Your task to perform on an android device: Search for the best rated vacuums on Target Image 0: 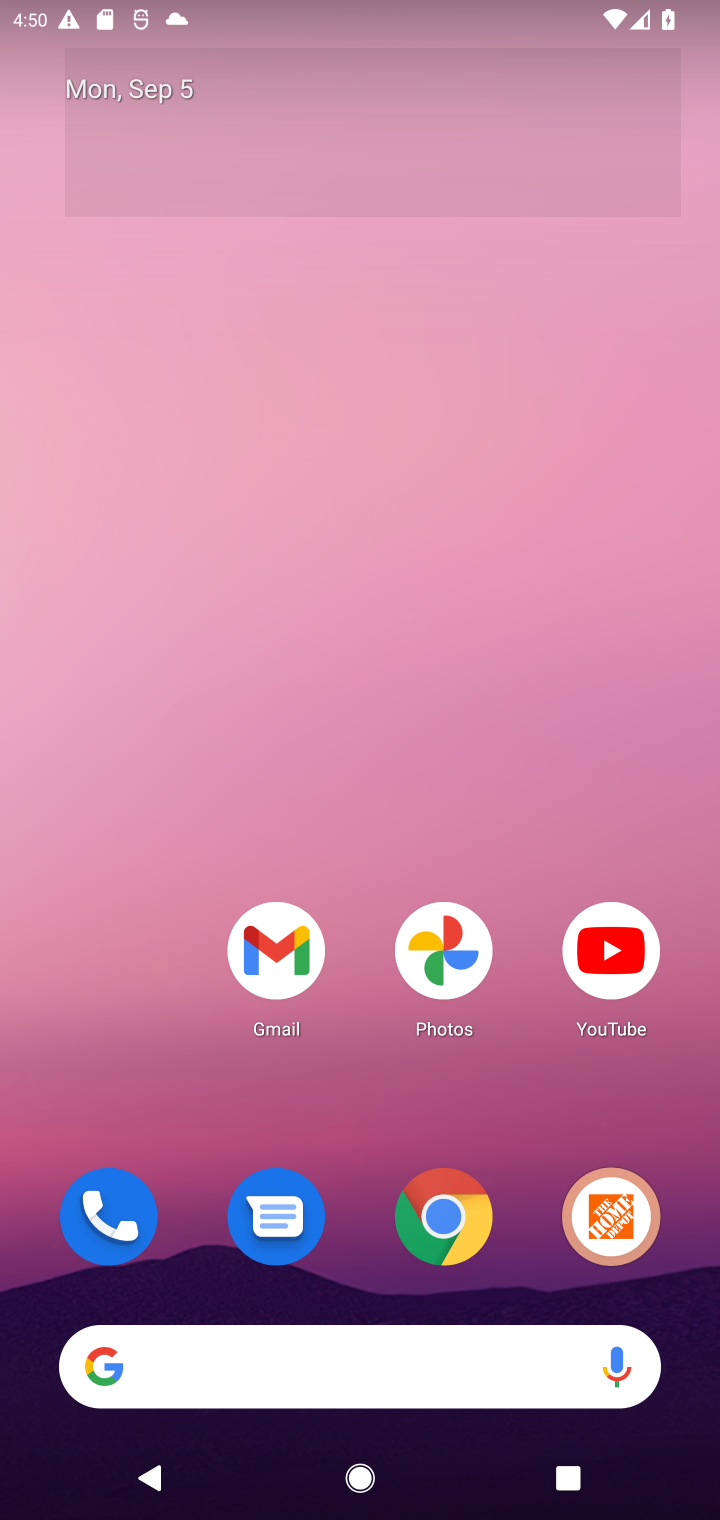
Step 0: click (85, 1363)
Your task to perform on an android device: Search for the best rated vacuums on Target Image 1: 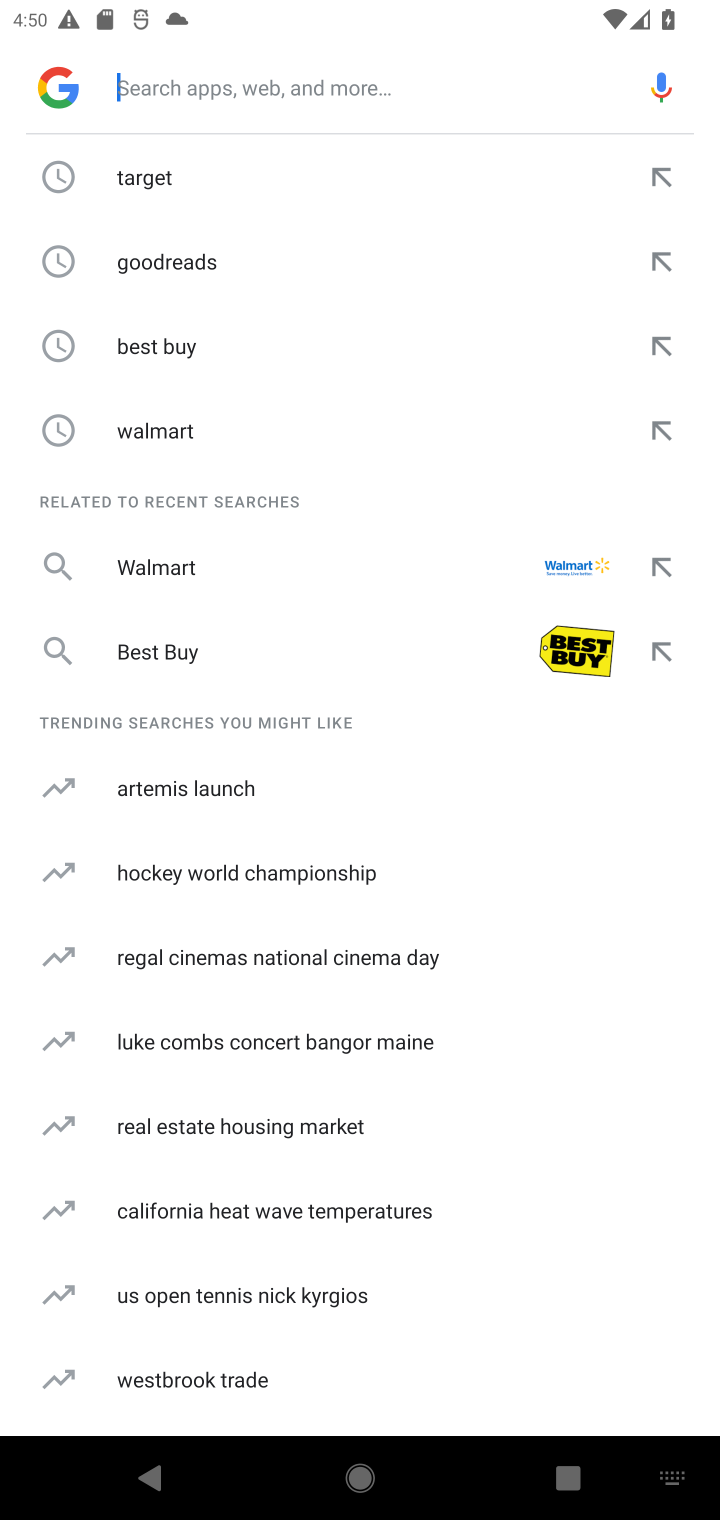
Step 1: click (147, 173)
Your task to perform on an android device: Search for the best rated vacuums on Target Image 2: 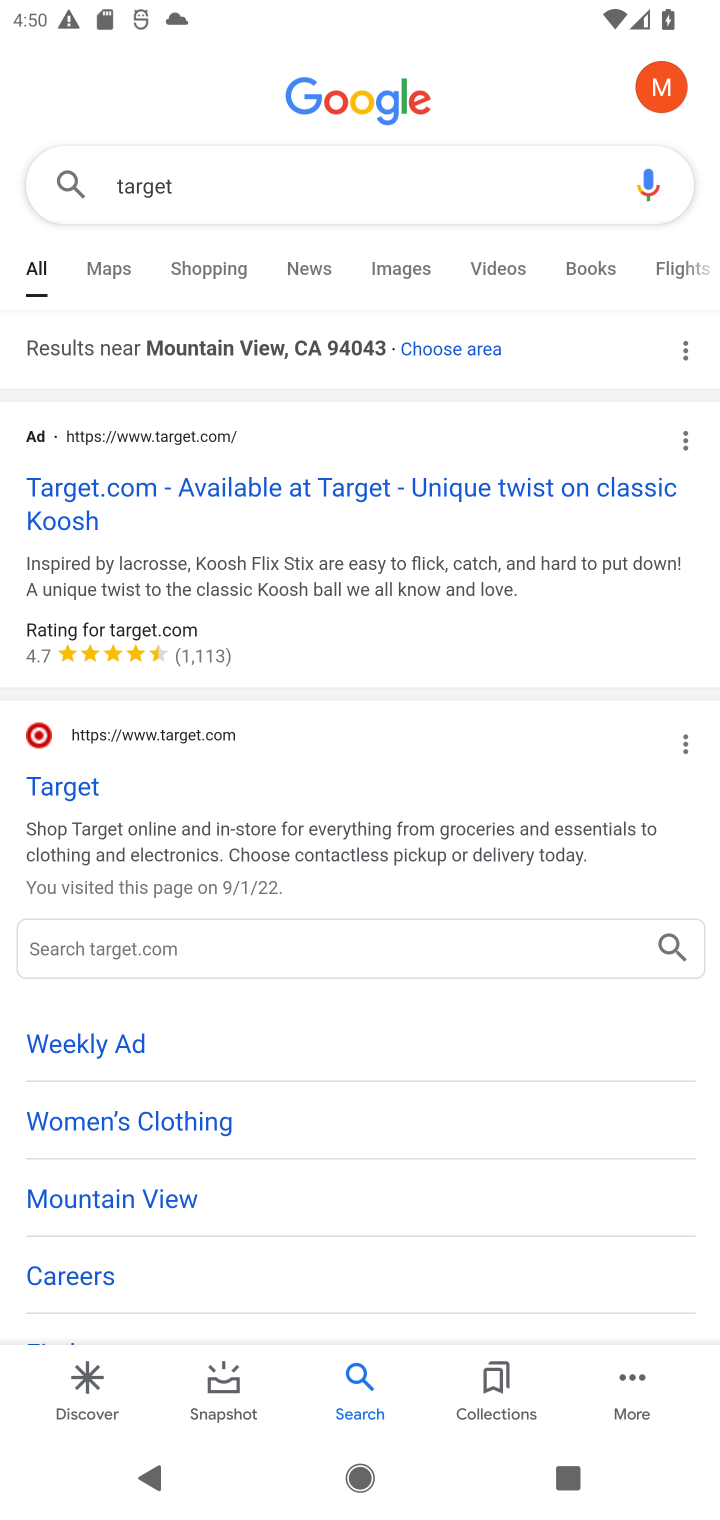
Step 2: click (82, 797)
Your task to perform on an android device: Search for the best rated vacuums on Target Image 3: 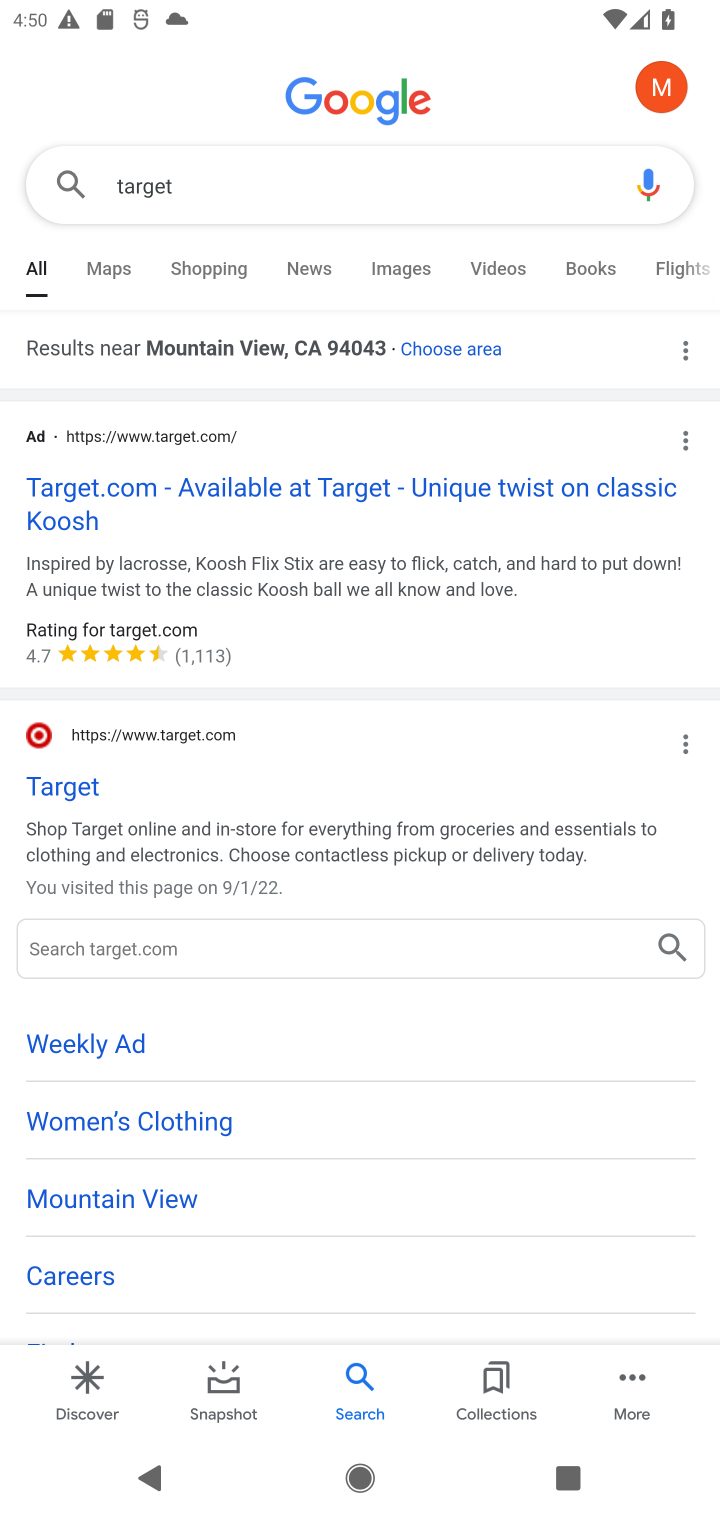
Step 3: click (78, 785)
Your task to perform on an android device: Search for the best rated vacuums on Target Image 4: 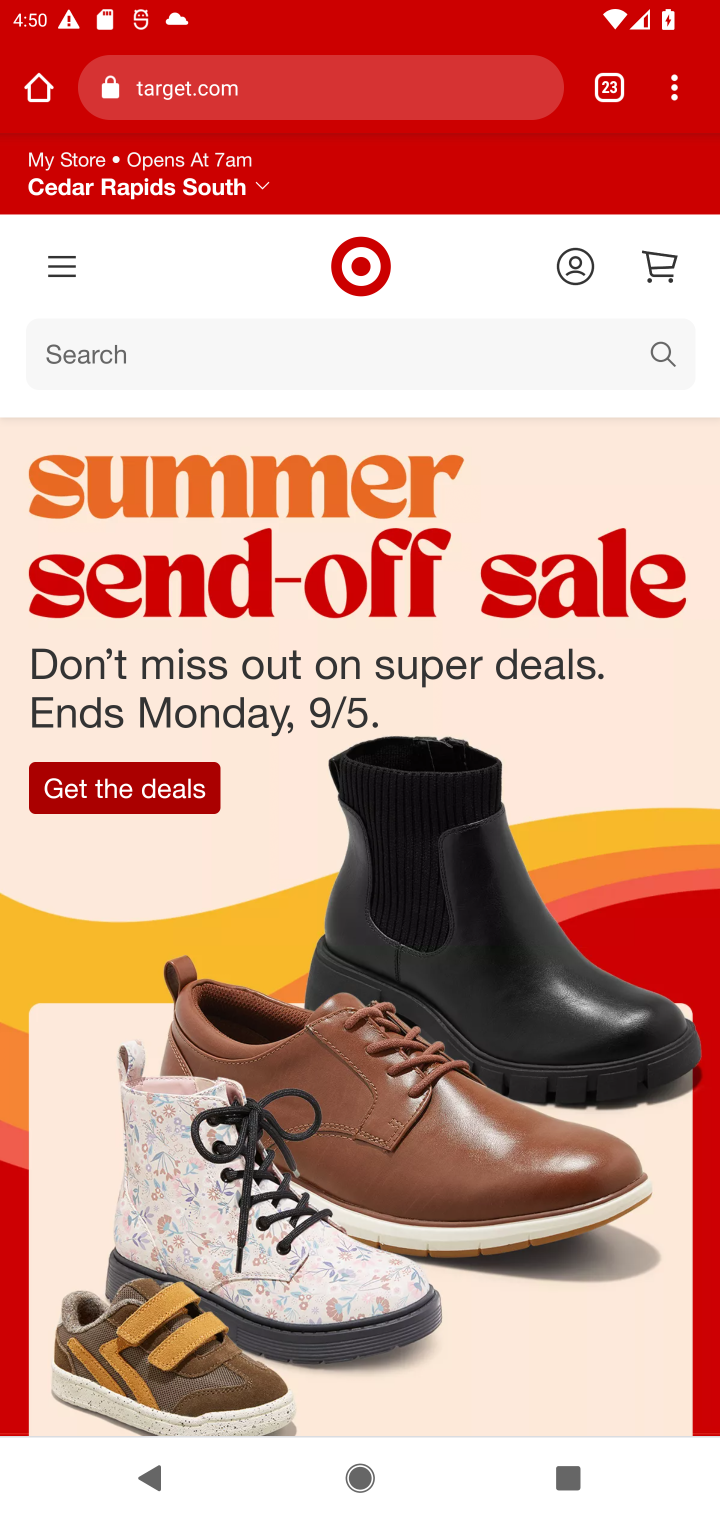
Step 4: click (250, 352)
Your task to perform on an android device: Search for the best rated vacuums on Target Image 5: 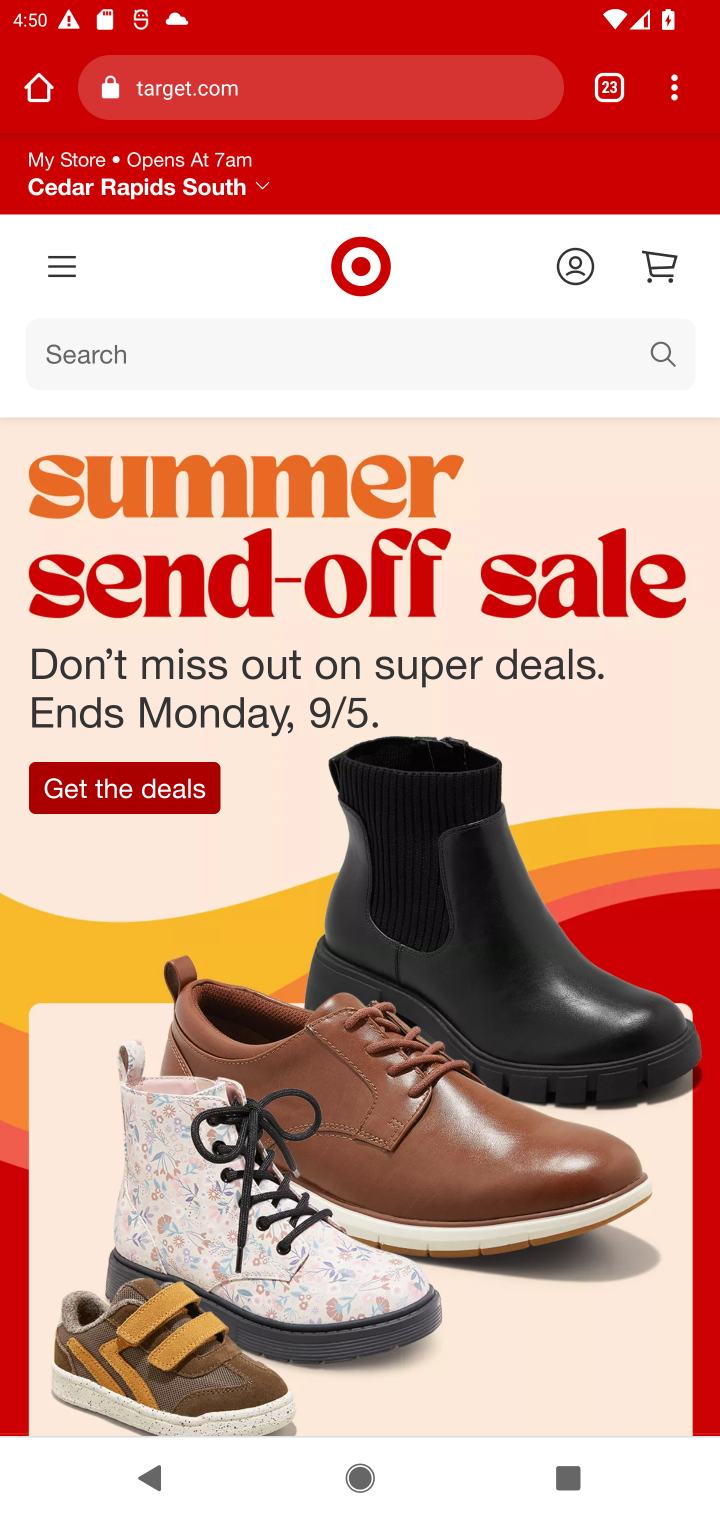
Step 5: click (118, 356)
Your task to perform on an android device: Search for the best rated vacuums on Target Image 6: 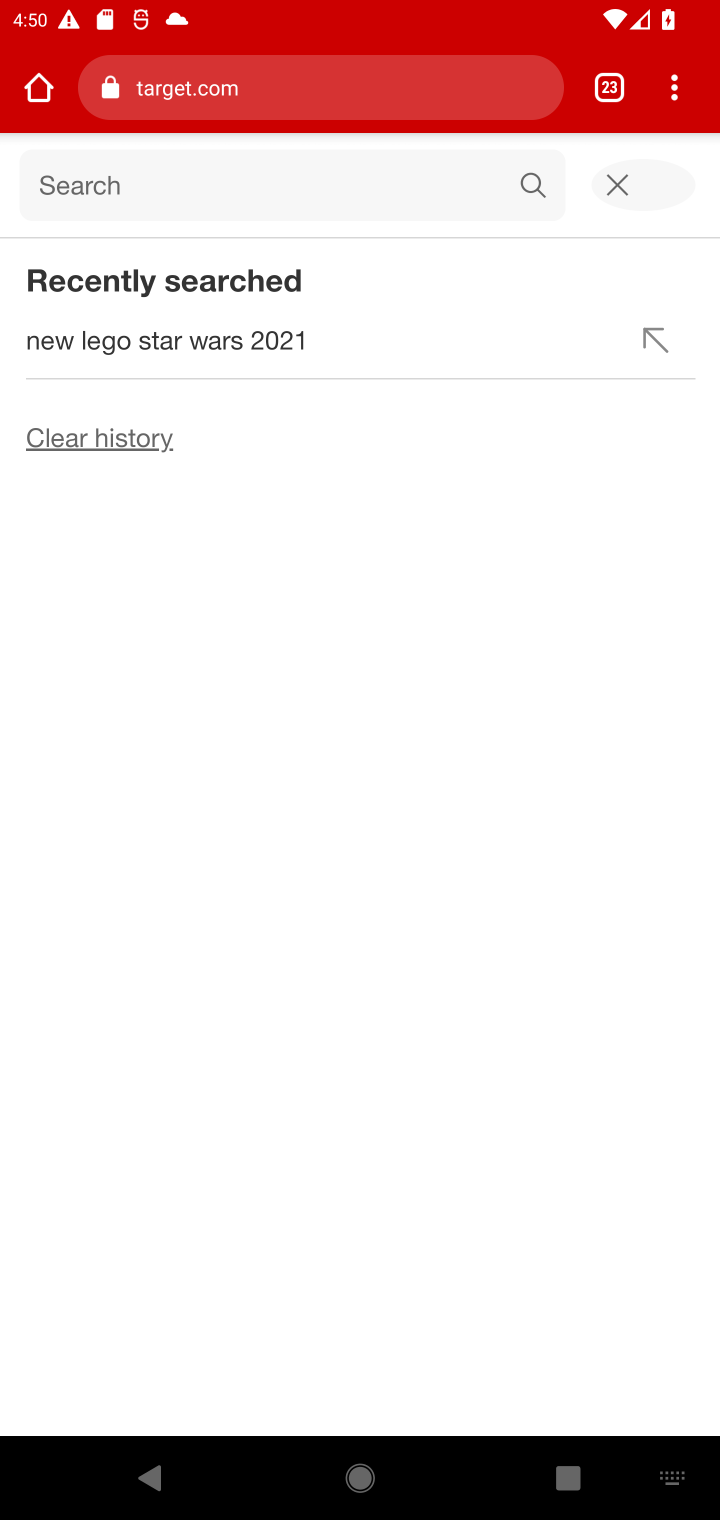
Step 6: type " vacuums "
Your task to perform on an android device: Search for the best rated vacuums on Target Image 7: 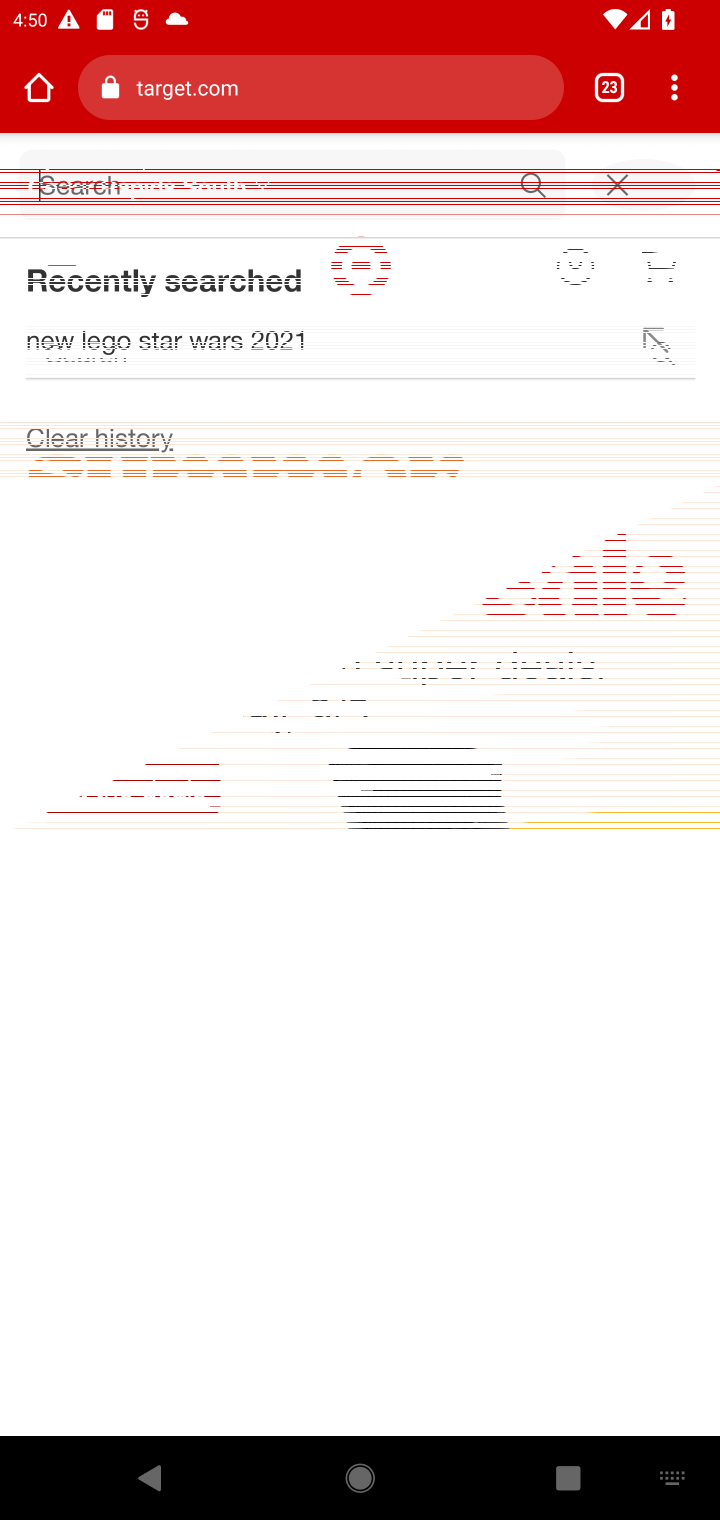
Step 7: click (99, 173)
Your task to perform on an android device: Search for the best rated vacuums on Target Image 8: 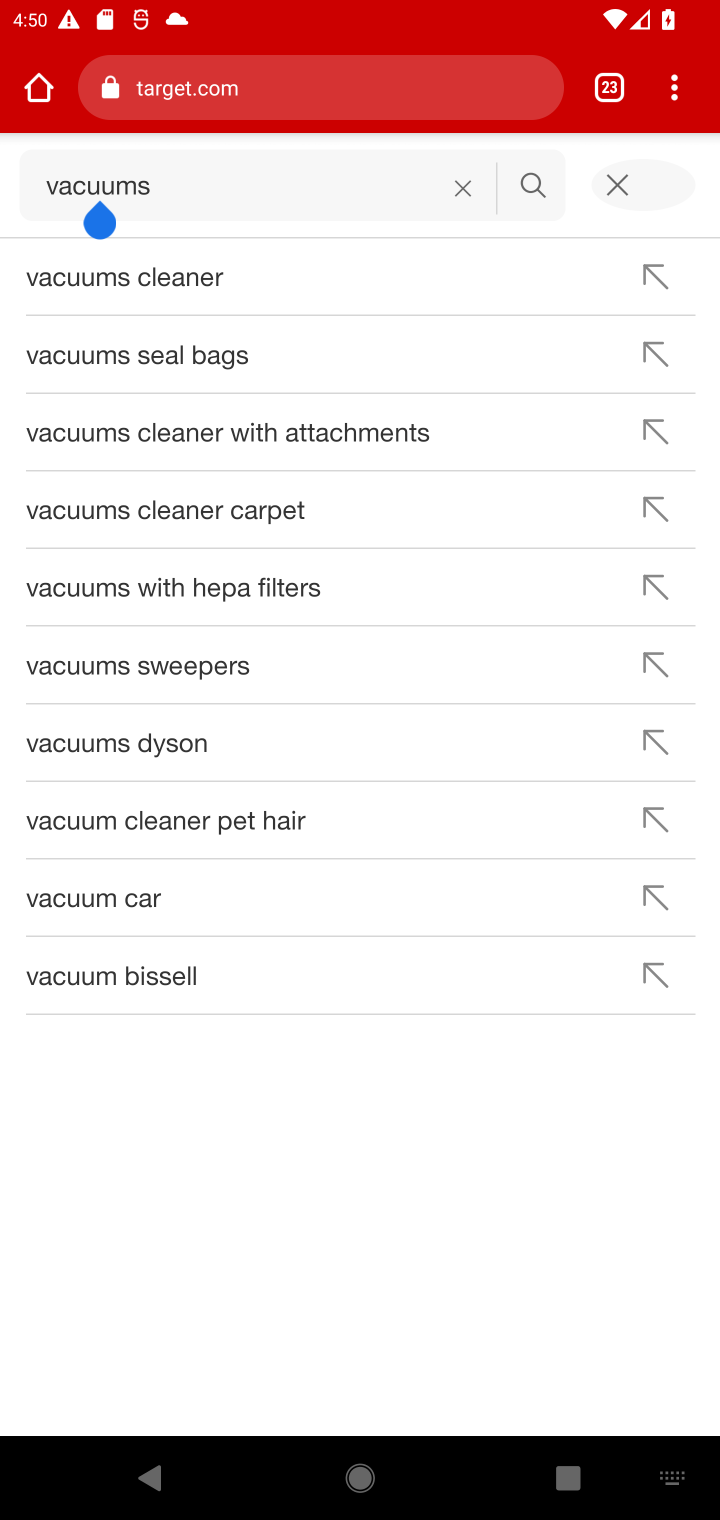
Step 8: press enter
Your task to perform on an android device: Search for the best rated vacuums on Target Image 9: 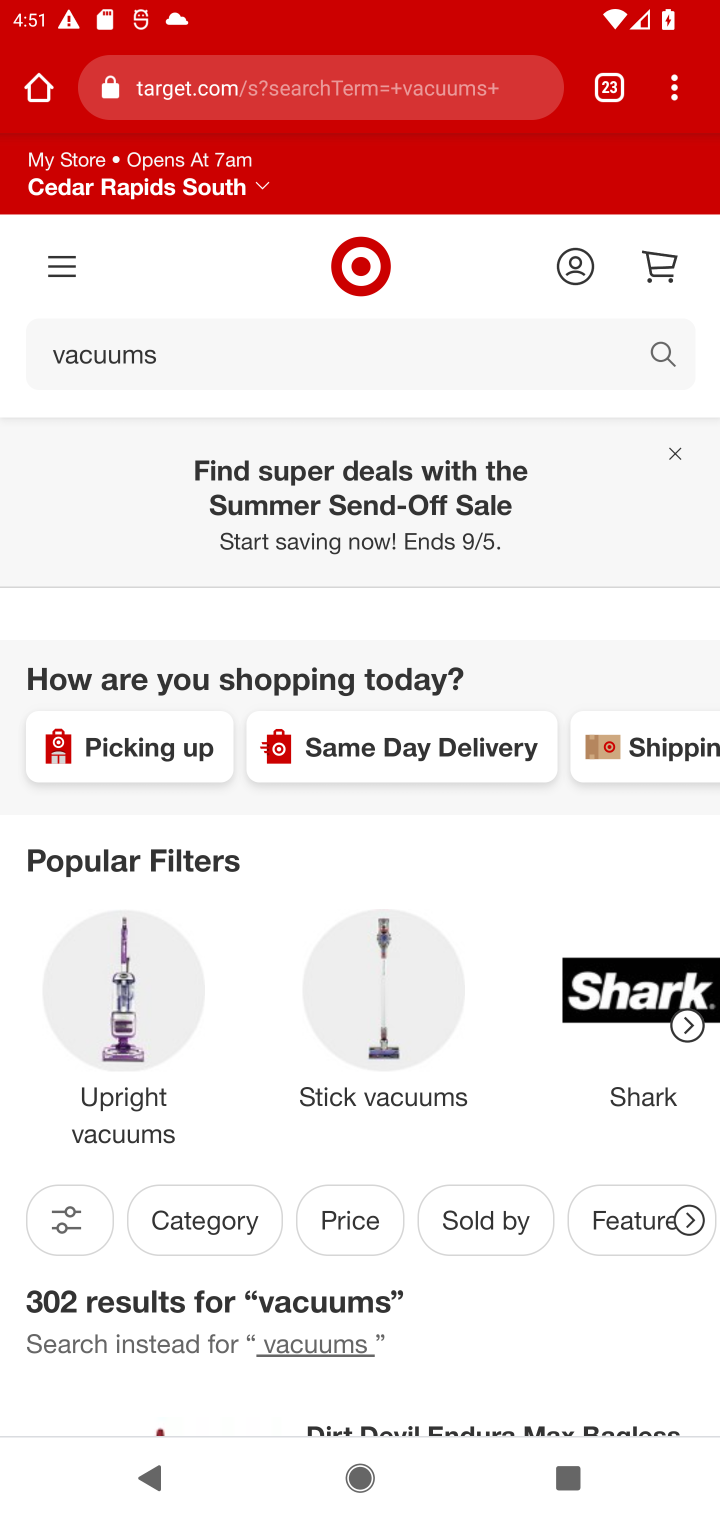
Step 9: click (678, 454)
Your task to perform on an android device: Search for the best rated vacuums on Target Image 10: 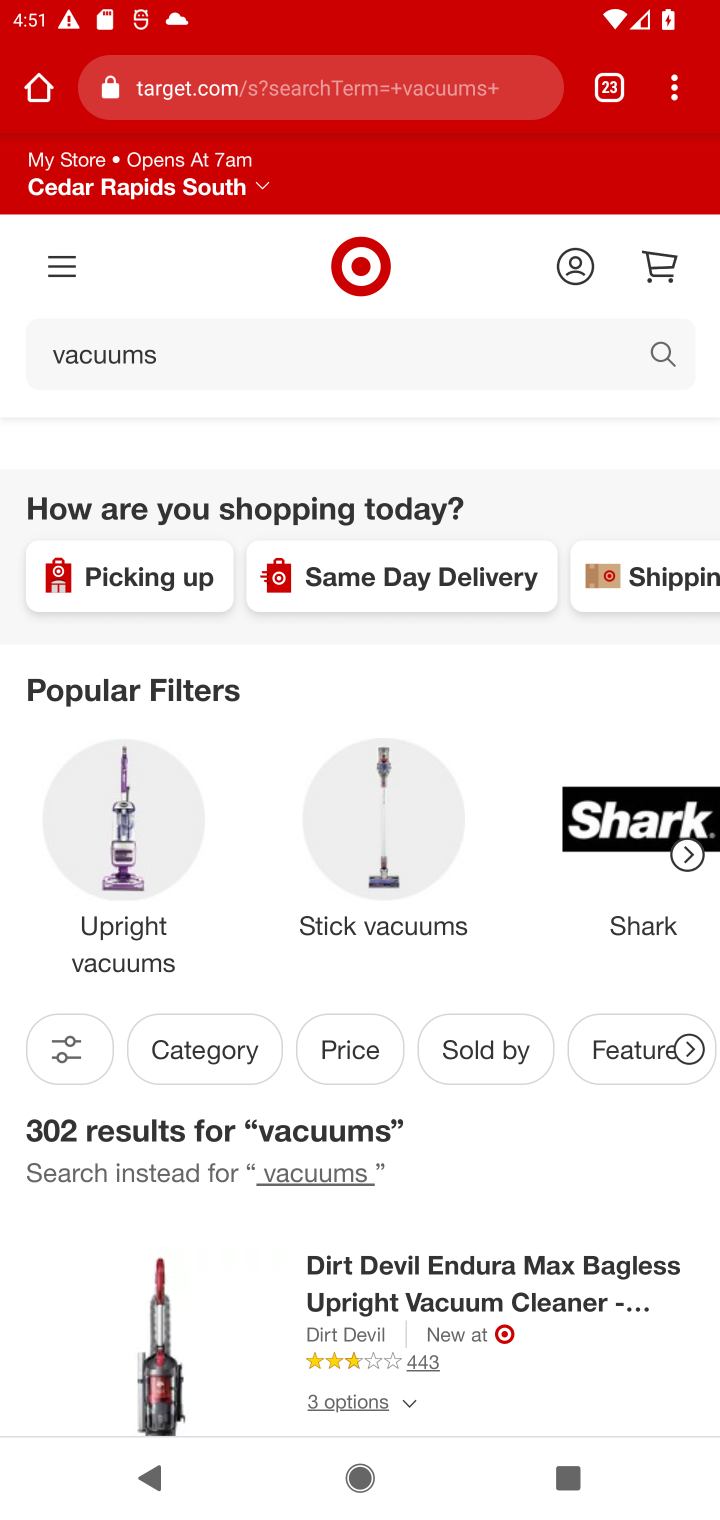
Step 10: drag from (590, 434) to (639, 1076)
Your task to perform on an android device: Search for the best rated vacuums on Target Image 11: 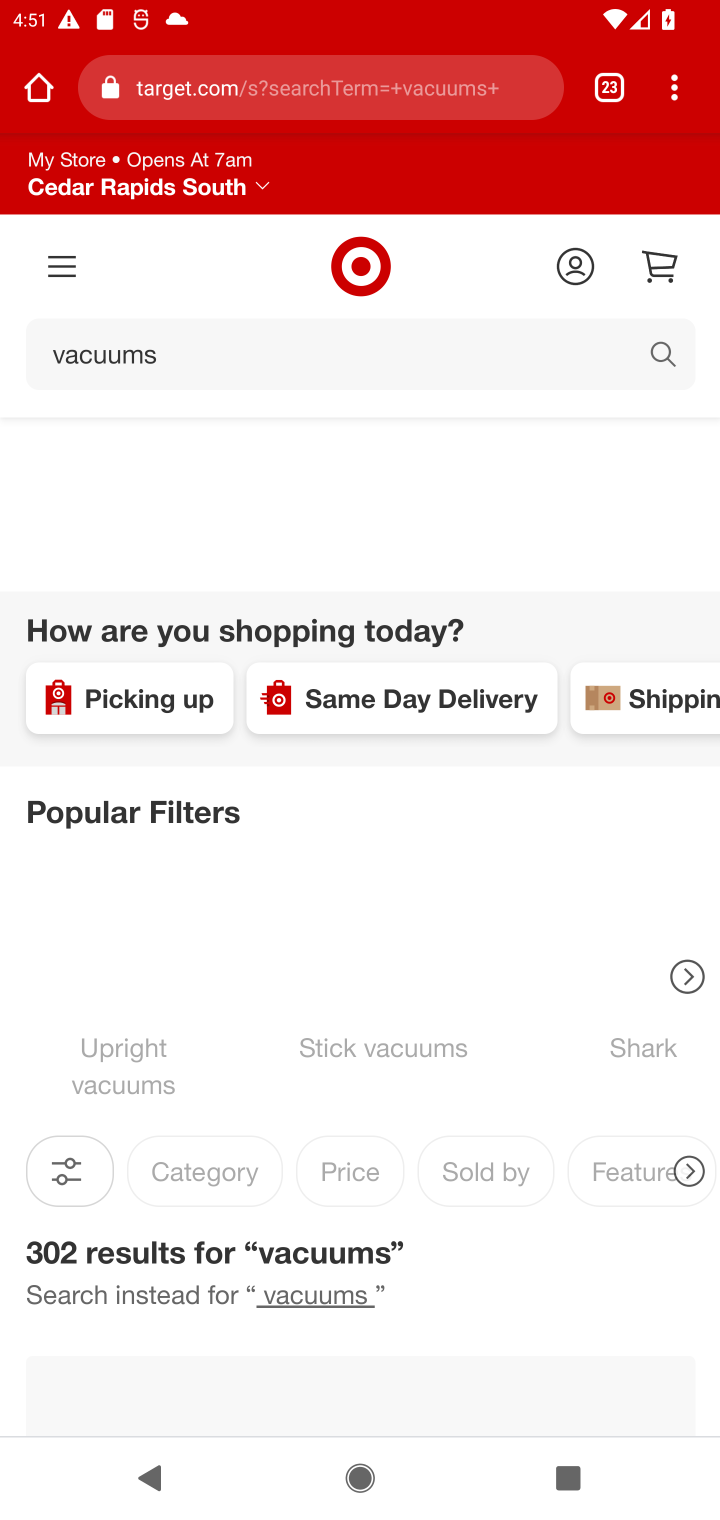
Step 11: click (664, 350)
Your task to perform on an android device: Search for the best rated vacuums on Target Image 12: 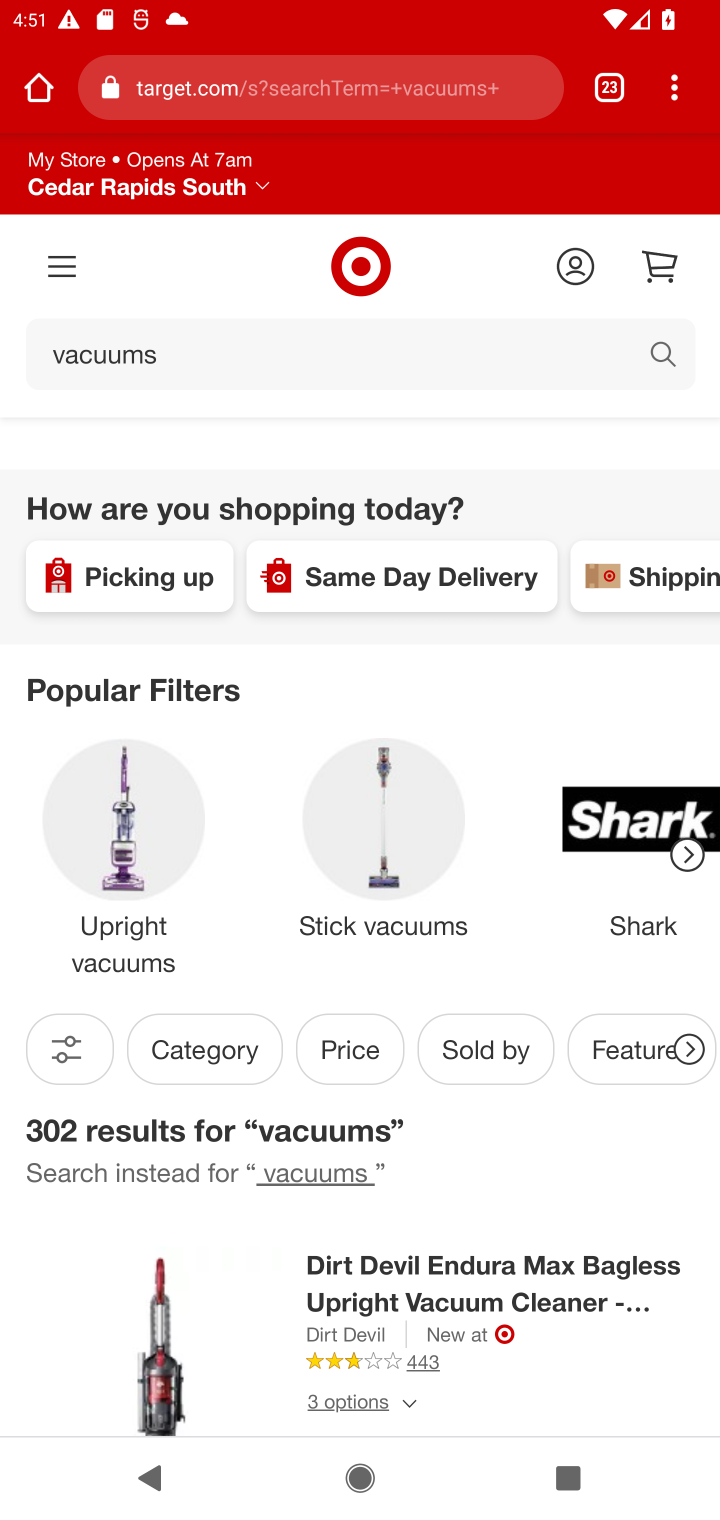
Step 12: click (191, 1053)
Your task to perform on an android device: Search for the best rated vacuums on Target Image 13: 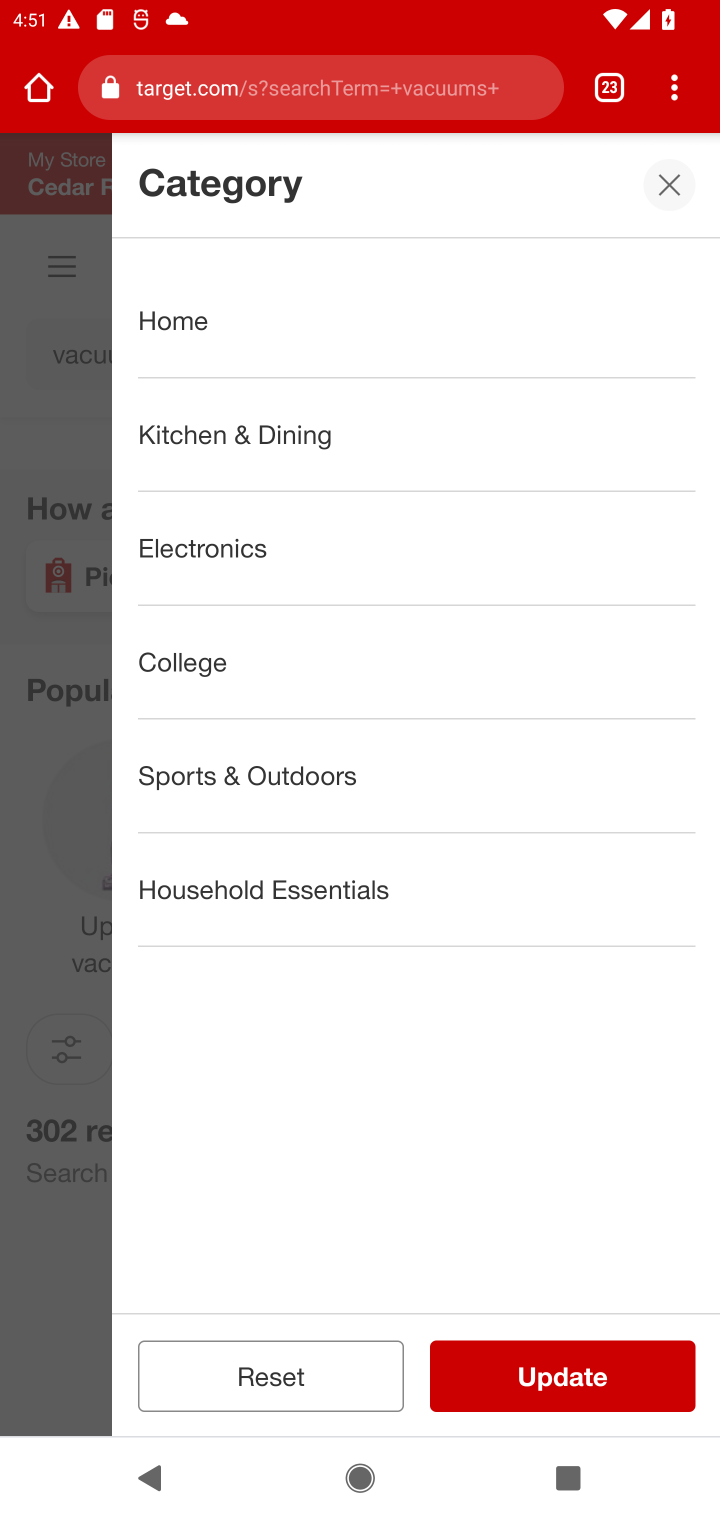
Step 13: click (69, 1042)
Your task to perform on an android device: Search for the best rated vacuums on Target Image 14: 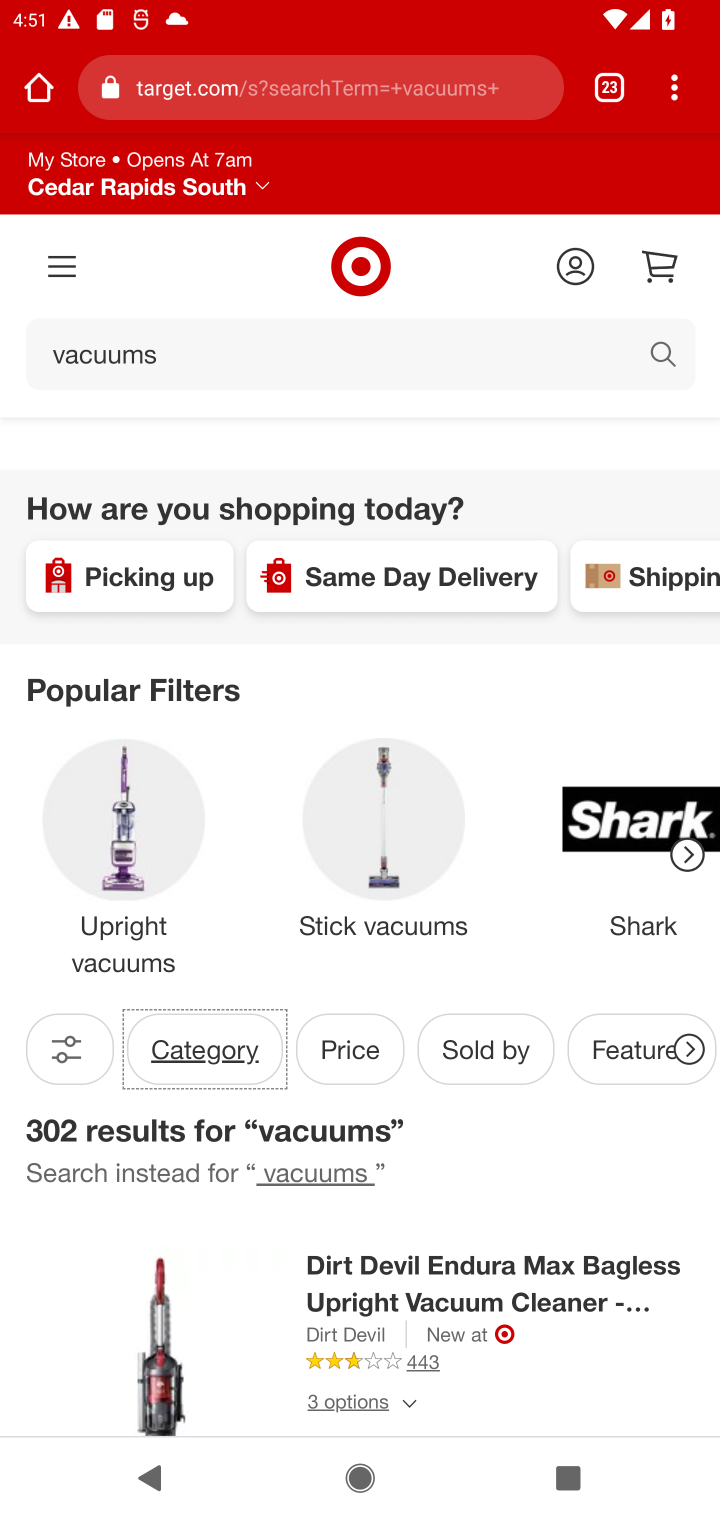
Step 14: click (517, 1052)
Your task to perform on an android device: Search for the best rated vacuums on Target Image 15: 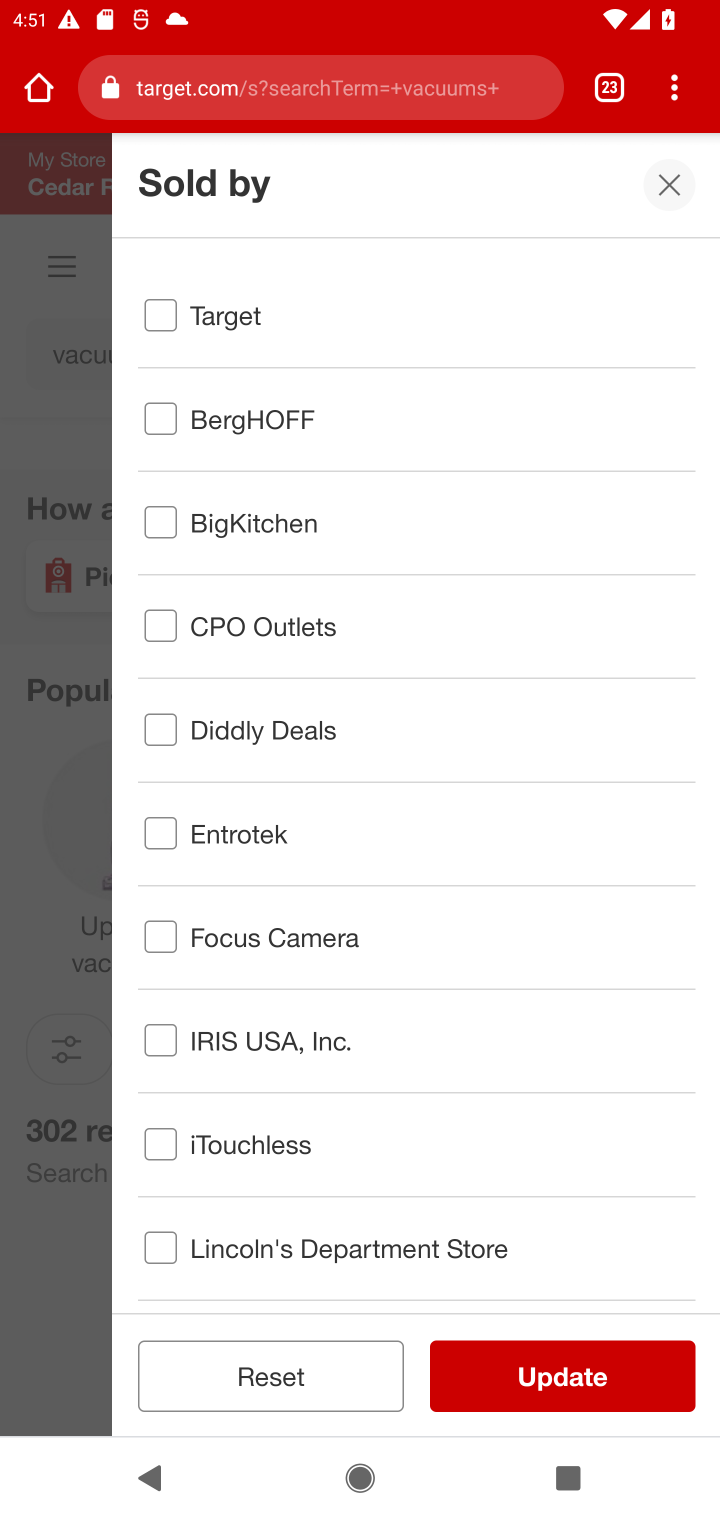
Step 15: click (665, 187)
Your task to perform on an android device: Search for the best rated vacuums on Target Image 16: 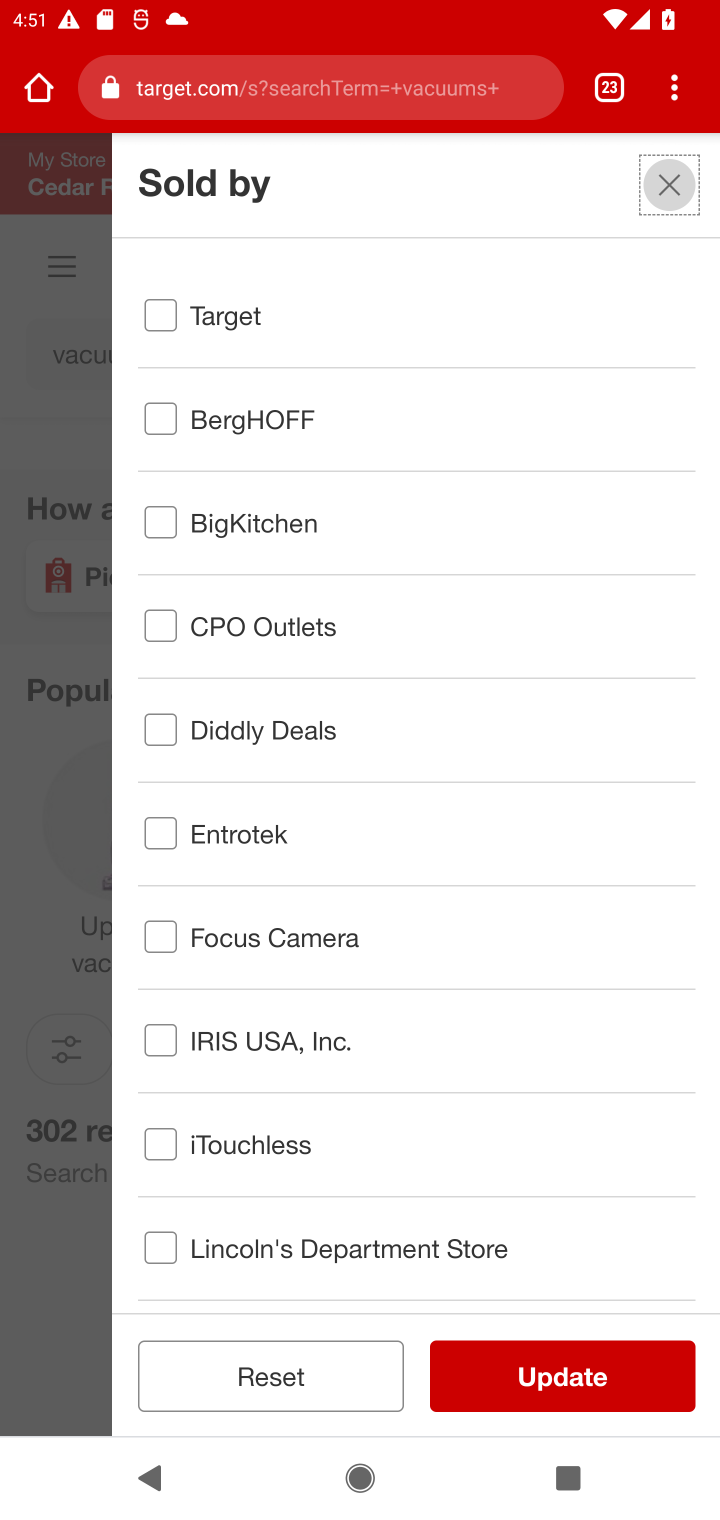
Step 16: click (679, 190)
Your task to perform on an android device: Search for the best rated vacuums on Target Image 17: 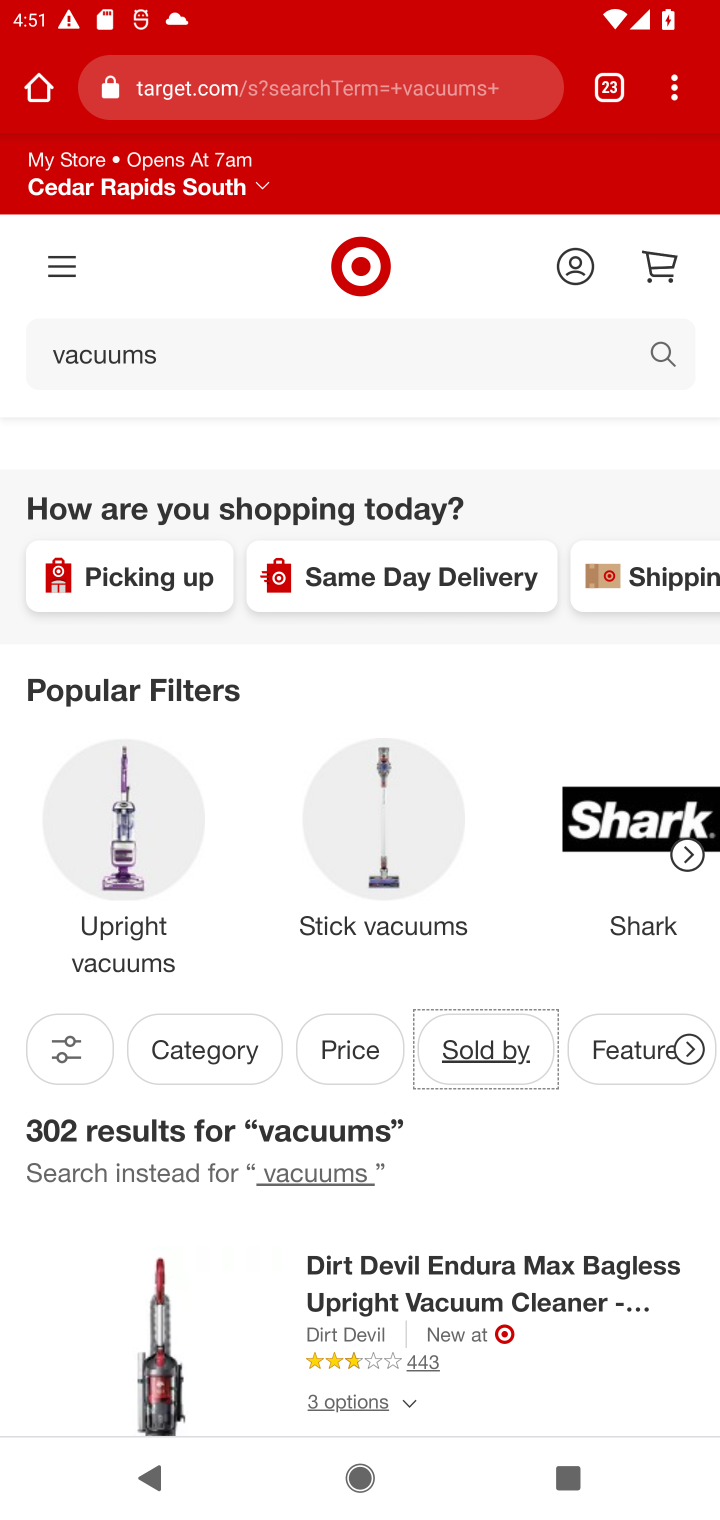
Step 17: click (61, 1036)
Your task to perform on an android device: Search for the best rated vacuums on Target Image 18: 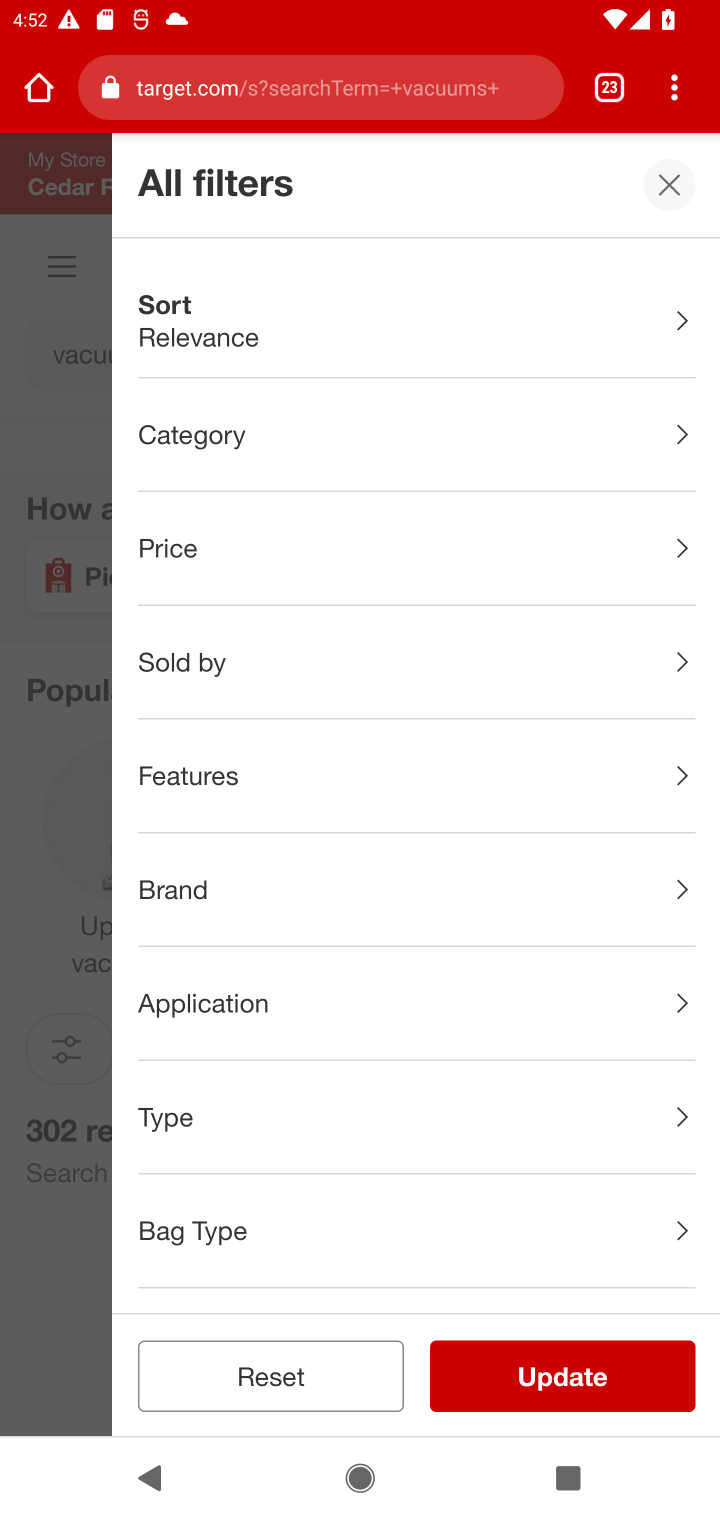
Step 18: drag from (163, 1259) to (382, 1149)
Your task to perform on an android device: Search for the best rated vacuums on Target Image 19: 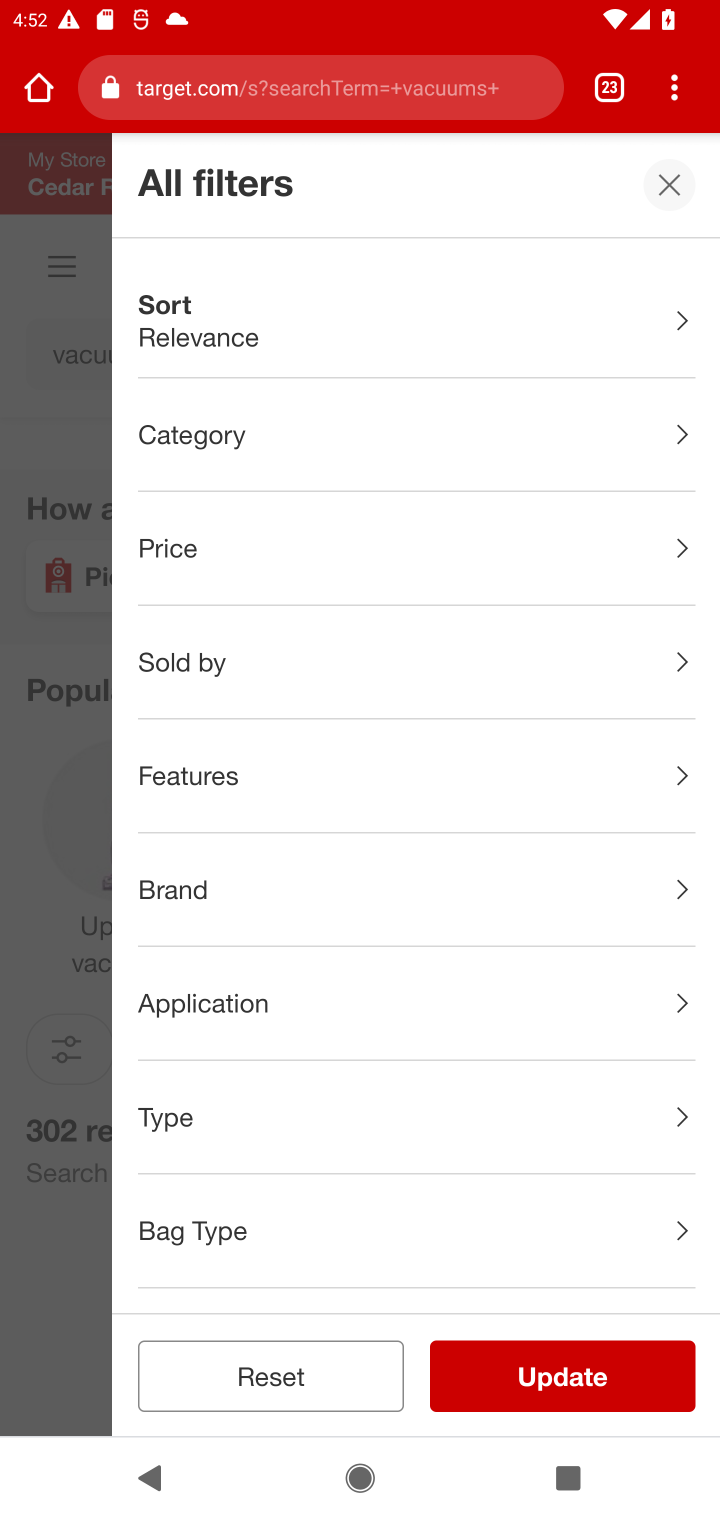
Step 19: click (235, 317)
Your task to perform on an android device: Search for the best rated vacuums on Target Image 20: 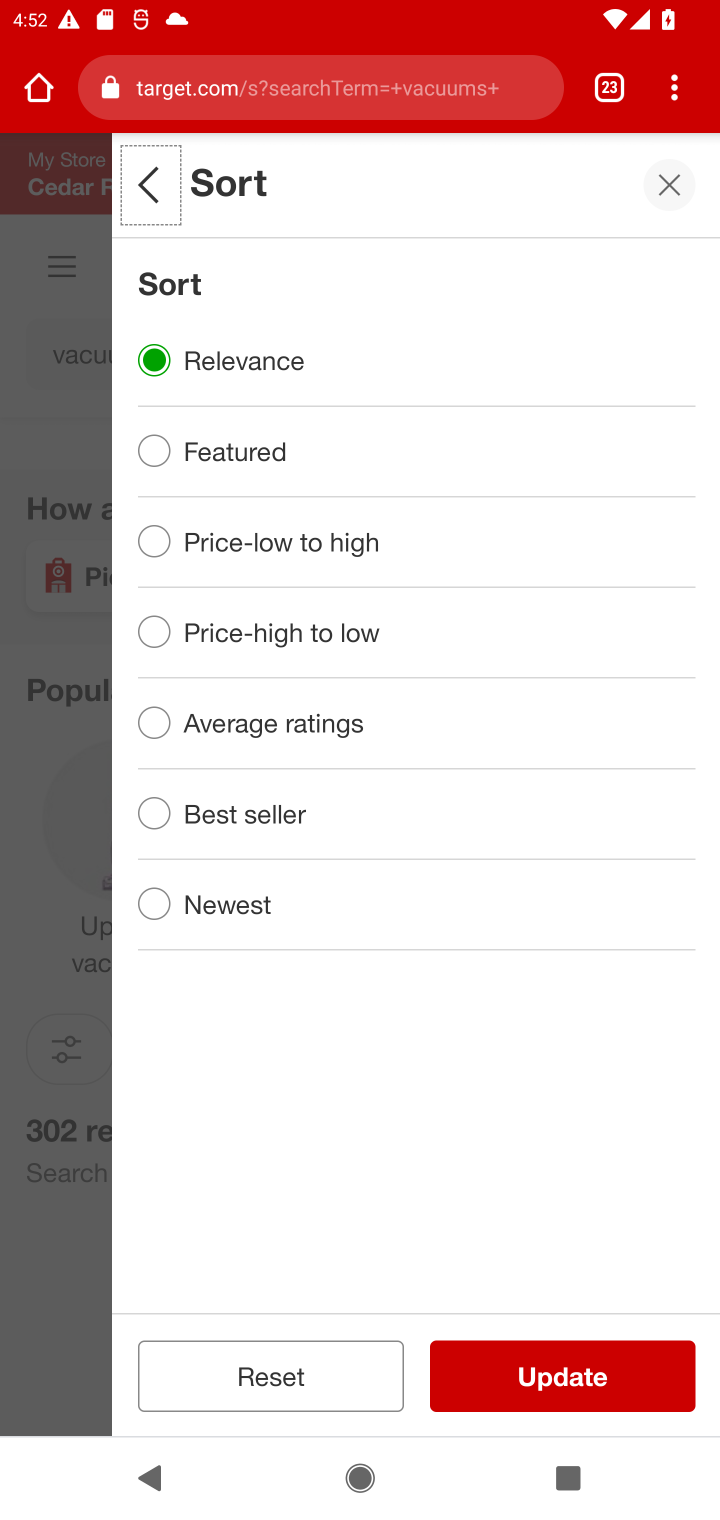
Step 20: click (161, 808)
Your task to perform on an android device: Search for the best rated vacuums on Target Image 21: 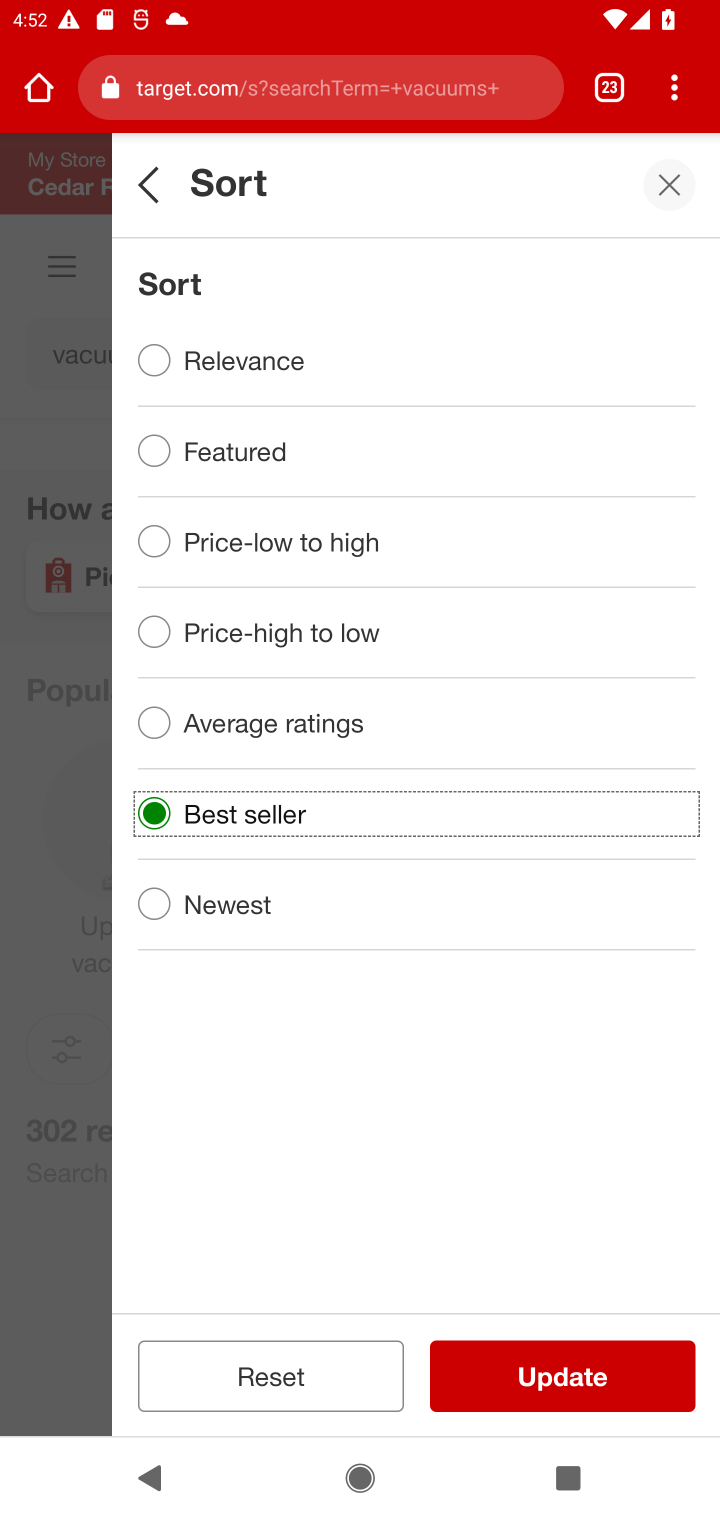
Step 21: click (598, 1391)
Your task to perform on an android device: Search for the best rated vacuums on Target Image 22: 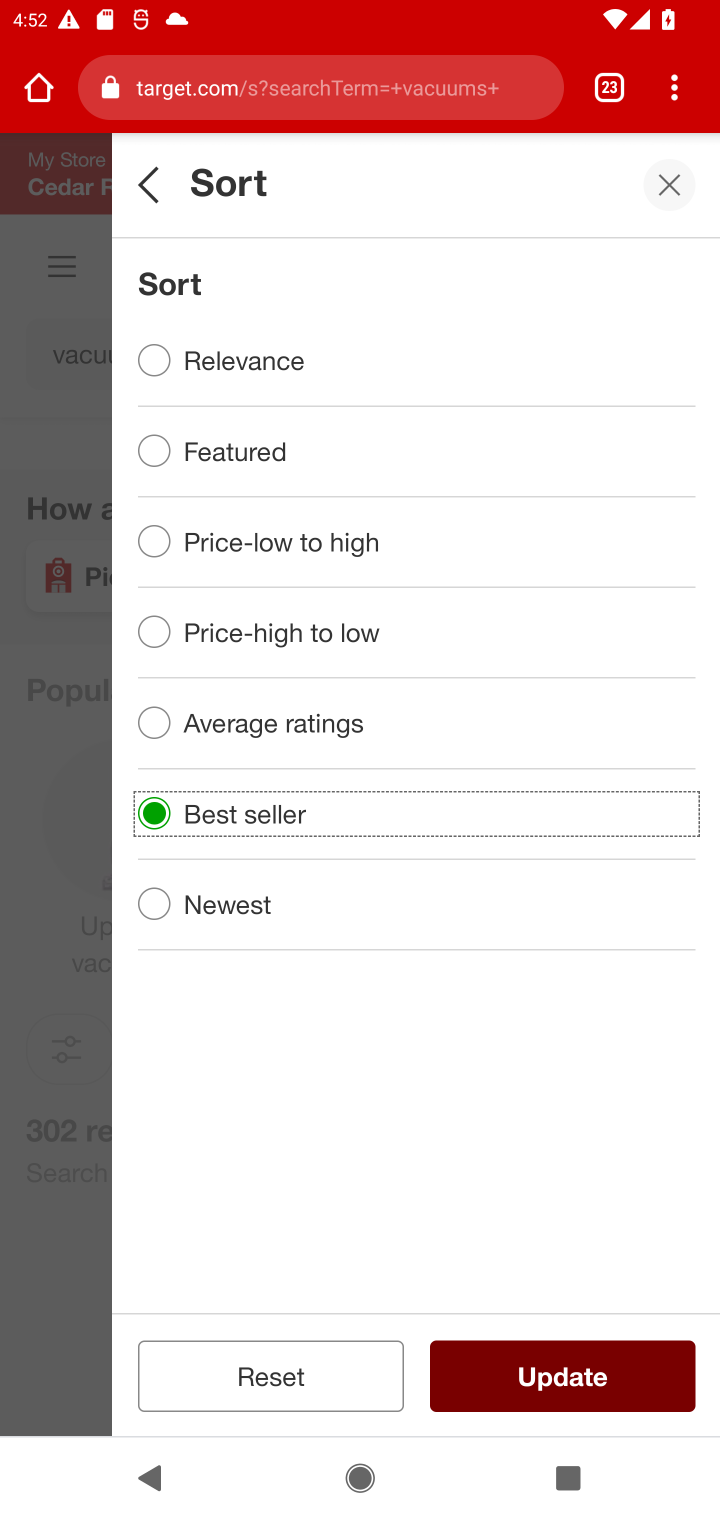
Step 22: click (516, 1364)
Your task to perform on an android device: Search for the best rated vacuums on Target Image 23: 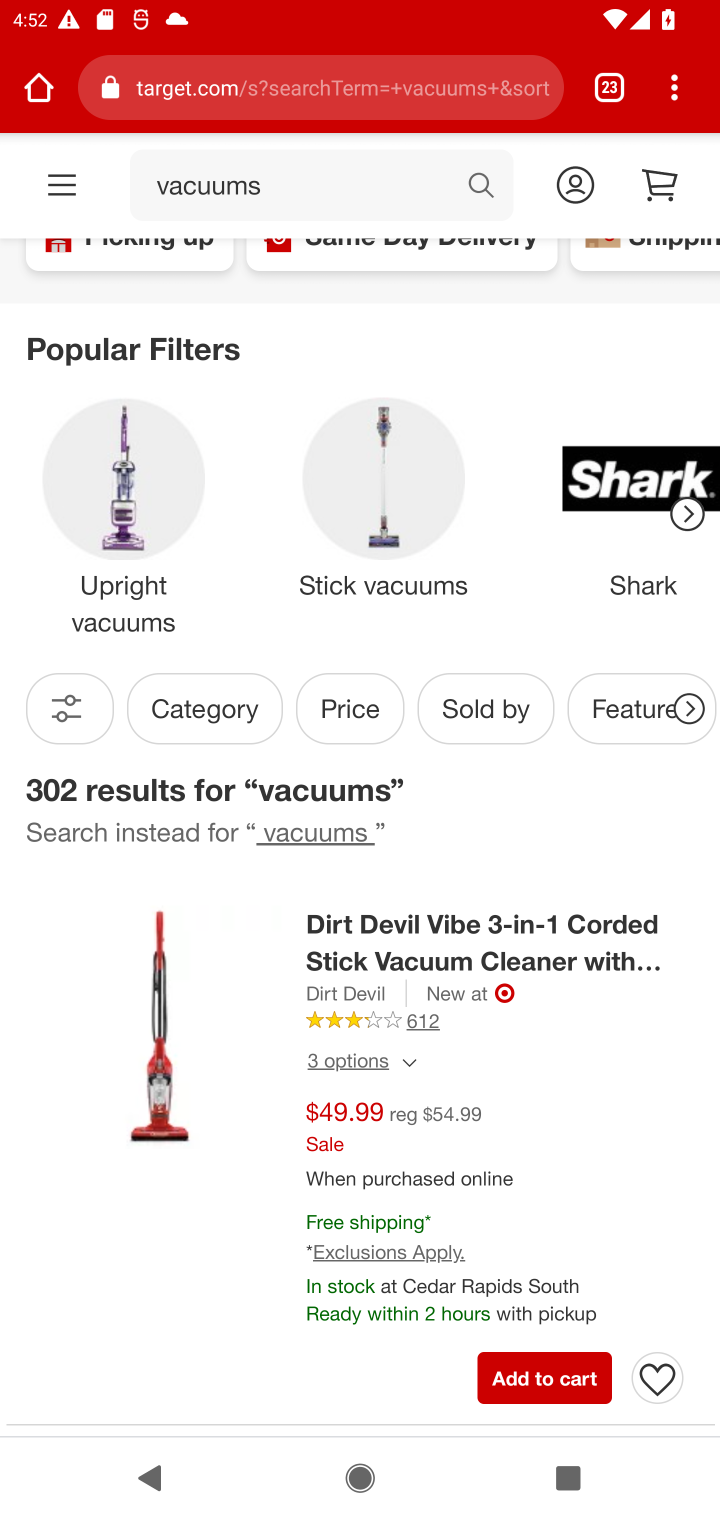
Step 23: task complete